Your task to perform on an android device: Go to privacy settings Image 0: 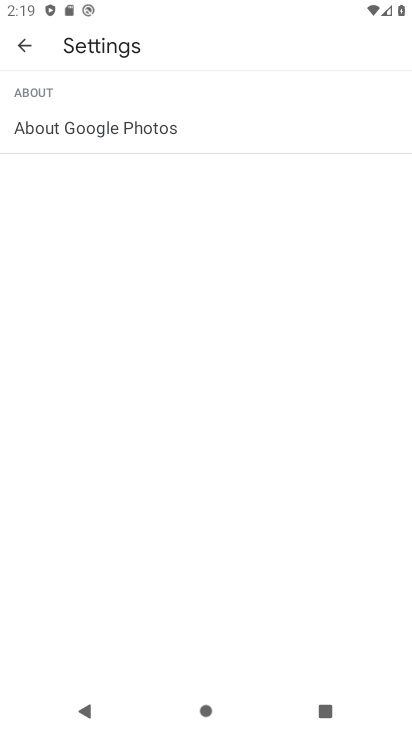
Step 0: press home button
Your task to perform on an android device: Go to privacy settings Image 1: 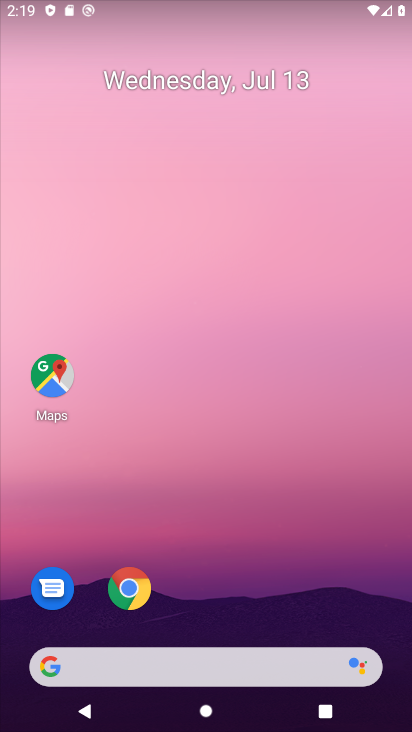
Step 1: drag from (214, 584) to (287, 155)
Your task to perform on an android device: Go to privacy settings Image 2: 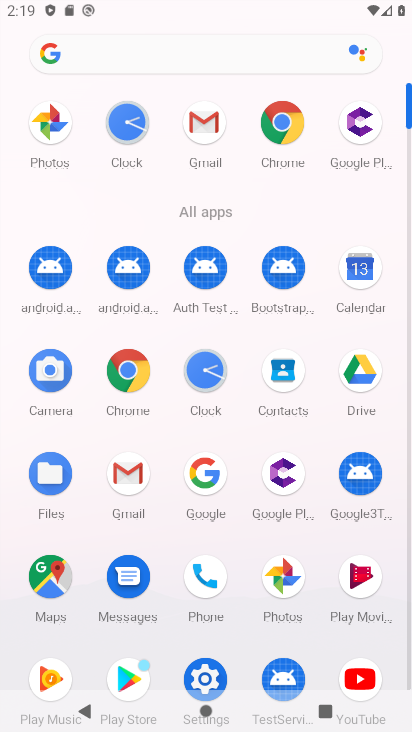
Step 2: click (213, 665)
Your task to perform on an android device: Go to privacy settings Image 3: 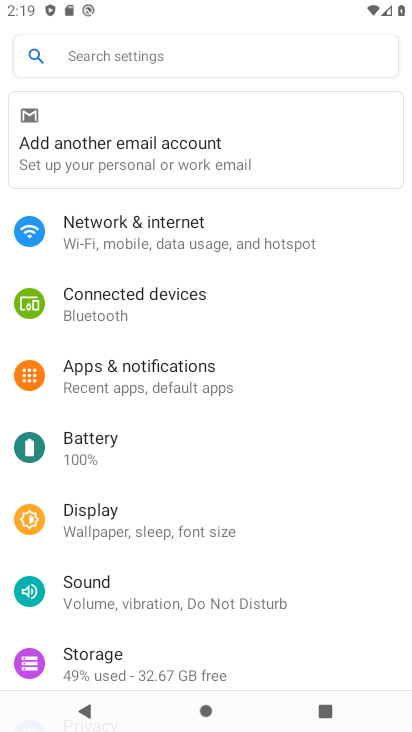
Step 3: drag from (112, 662) to (169, 342)
Your task to perform on an android device: Go to privacy settings Image 4: 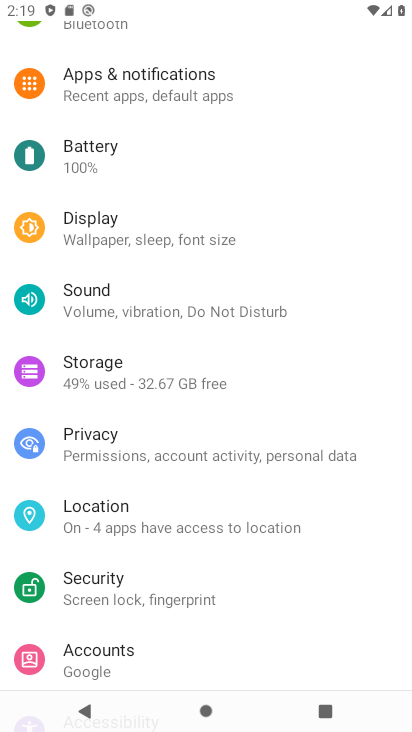
Step 4: click (94, 439)
Your task to perform on an android device: Go to privacy settings Image 5: 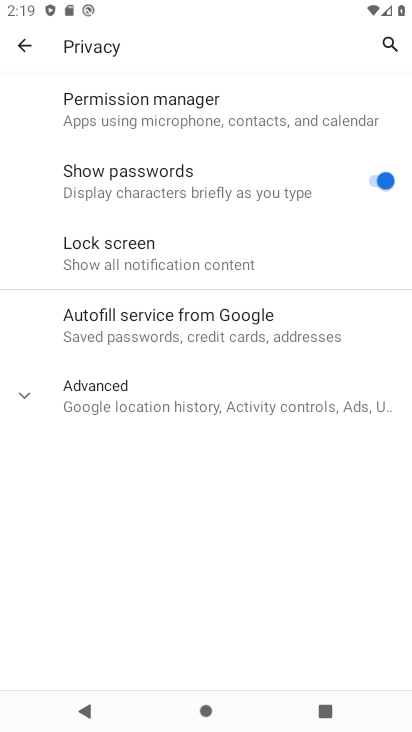
Step 5: task complete